Your task to perform on an android device: Go to eBay Image 0: 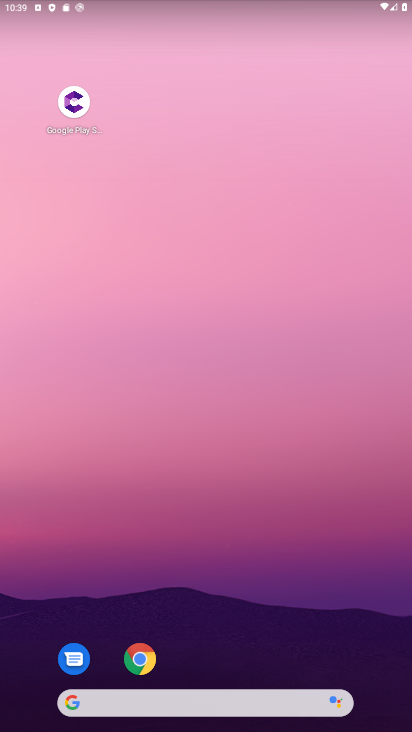
Step 0: click (124, 657)
Your task to perform on an android device: Go to eBay Image 1: 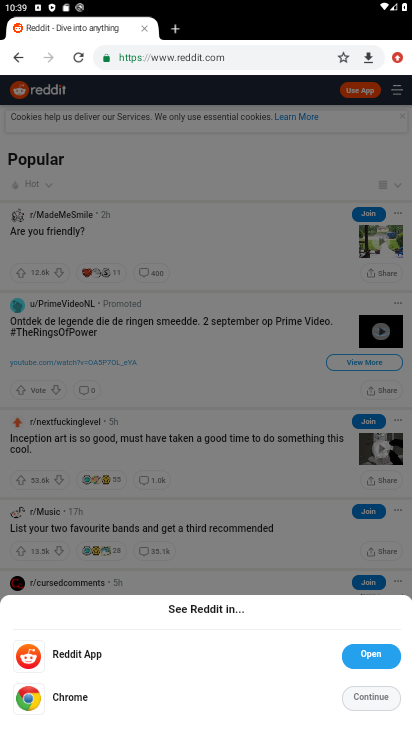
Step 1: click (178, 25)
Your task to perform on an android device: Go to eBay Image 2: 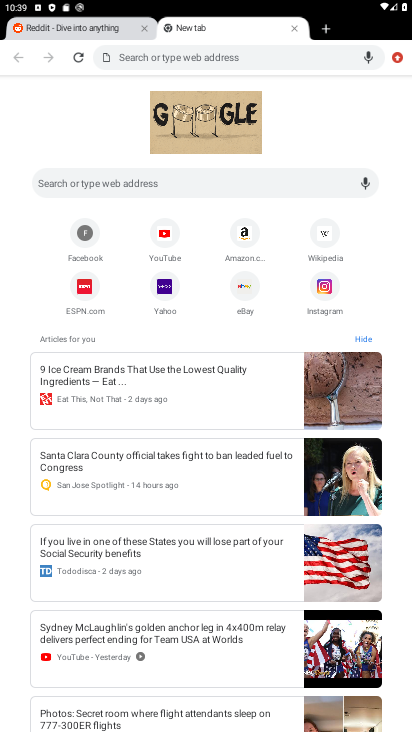
Step 2: click (242, 297)
Your task to perform on an android device: Go to eBay Image 3: 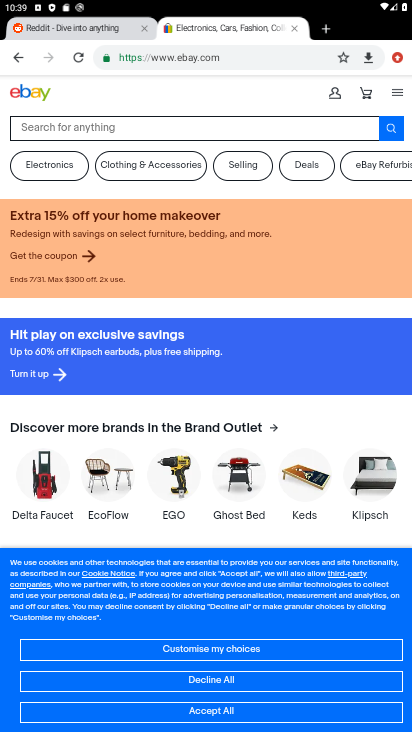
Step 3: task complete